Your task to perform on an android device: move a message to another label in the gmail app Image 0: 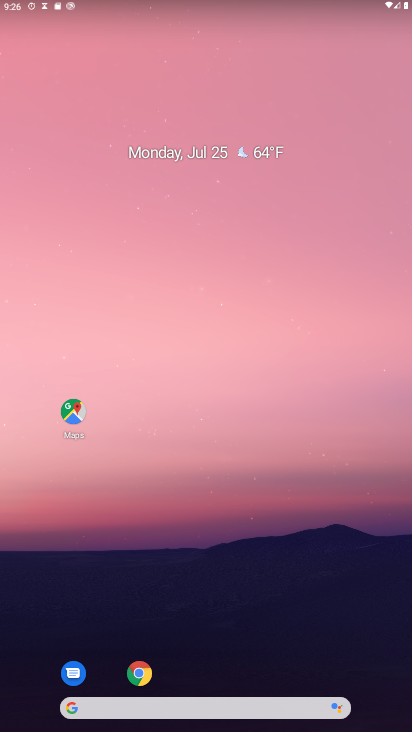
Step 0: press home button
Your task to perform on an android device: move a message to another label in the gmail app Image 1: 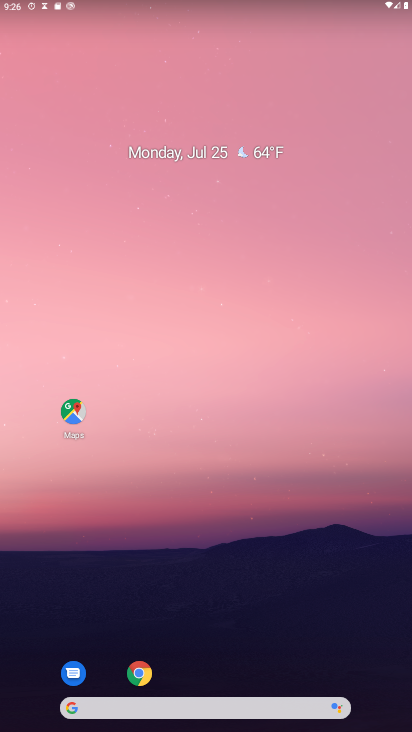
Step 1: drag from (225, 677) to (236, 57)
Your task to perform on an android device: move a message to another label in the gmail app Image 2: 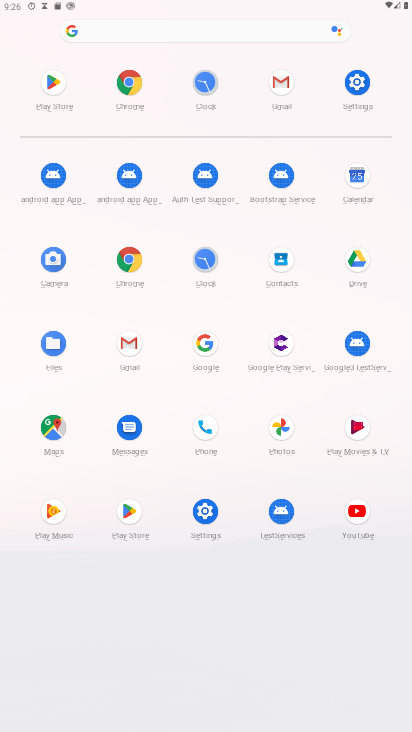
Step 2: click (279, 75)
Your task to perform on an android device: move a message to another label in the gmail app Image 3: 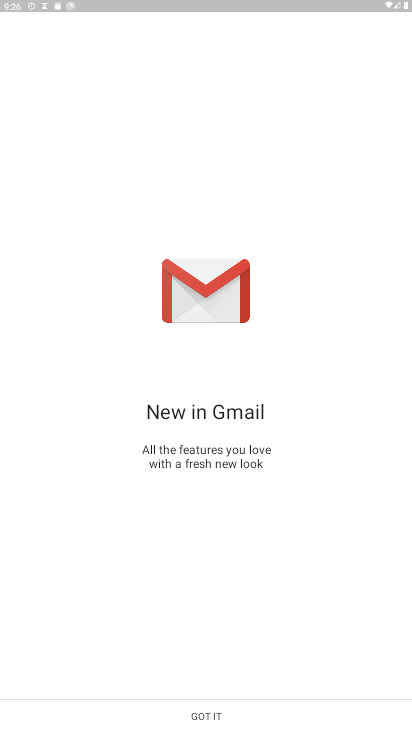
Step 3: click (208, 711)
Your task to perform on an android device: move a message to another label in the gmail app Image 4: 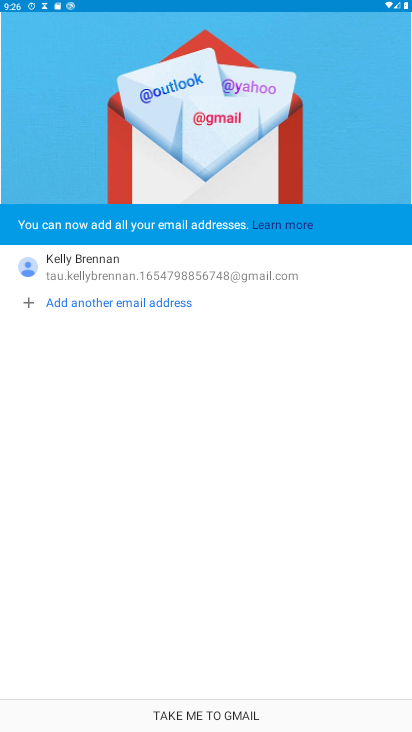
Step 4: click (208, 711)
Your task to perform on an android device: move a message to another label in the gmail app Image 5: 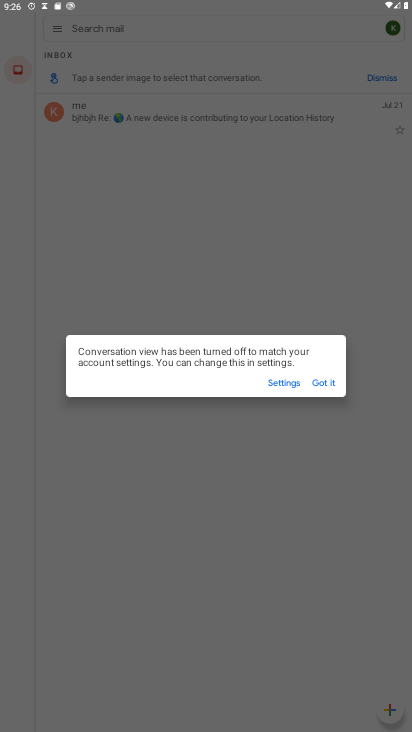
Step 5: click (321, 382)
Your task to perform on an android device: move a message to another label in the gmail app Image 6: 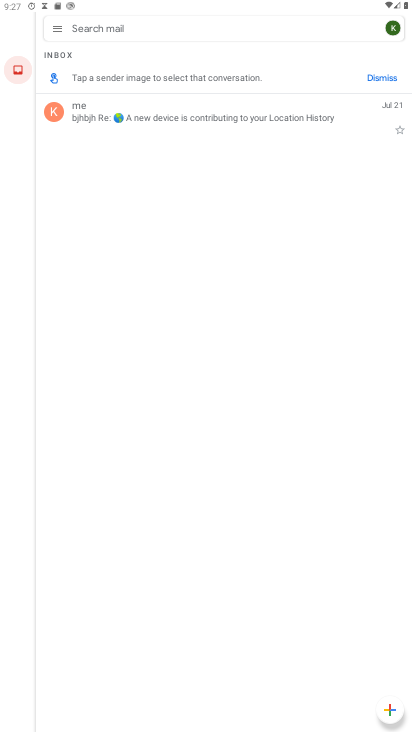
Step 6: click (48, 107)
Your task to perform on an android device: move a message to another label in the gmail app Image 7: 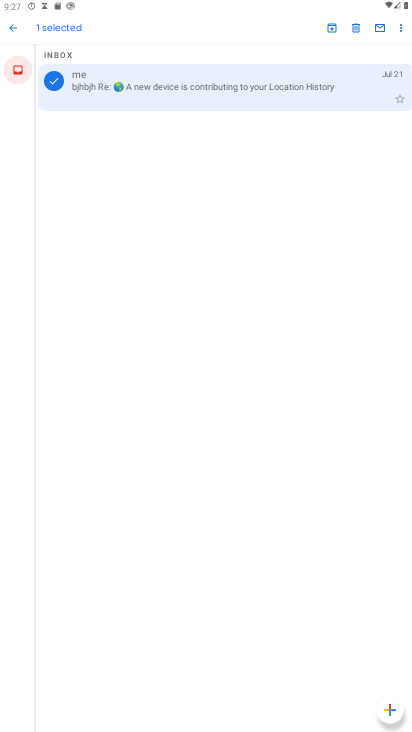
Step 7: click (400, 26)
Your task to perform on an android device: move a message to another label in the gmail app Image 8: 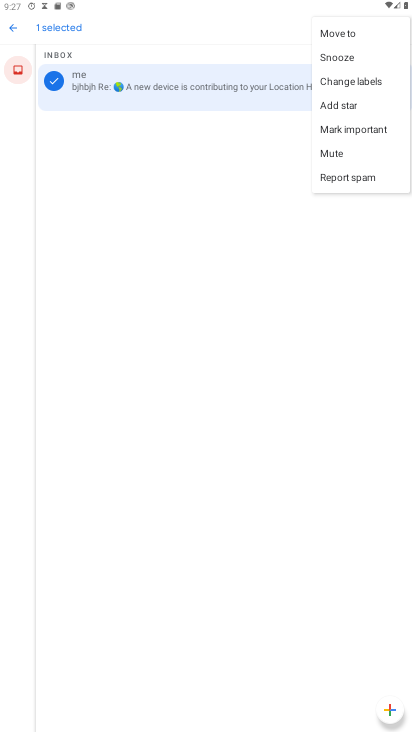
Step 8: click (359, 30)
Your task to perform on an android device: move a message to another label in the gmail app Image 9: 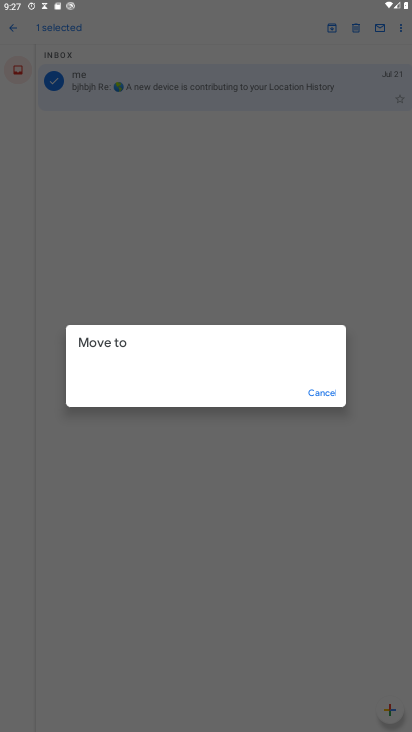
Step 9: click (311, 397)
Your task to perform on an android device: move a message to another label in the gmail app Image 10: 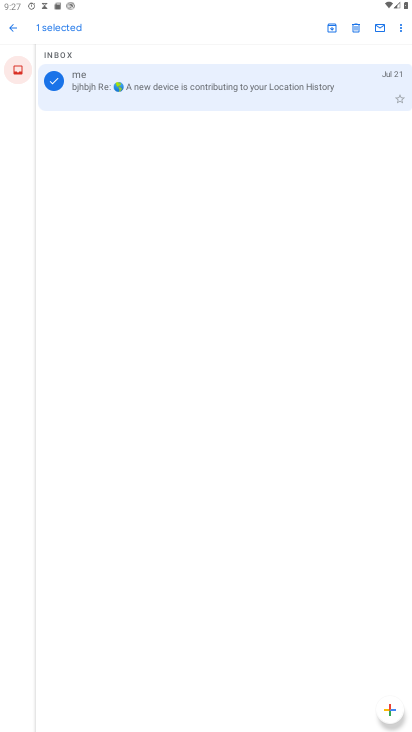
Step 10: click (400, 25)
Your task to perform on an android device: move a message to another label in the gmail app Image 11: 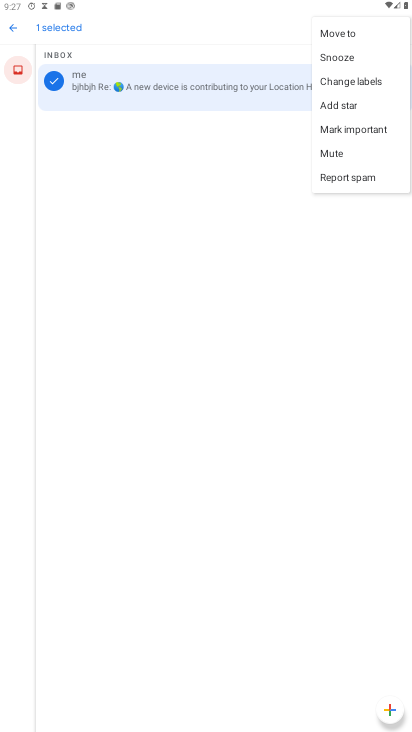
Step 11: click (353, 81)
Your task to perform on an android device: move a message to another label in the gmail app Image 12: 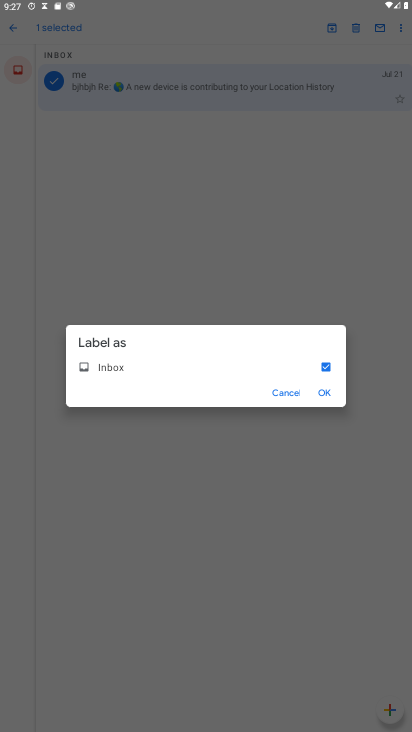
Step 12: click (319, 393)
Your task to perform on an android device: move a message to another label in the gmail app Image 13: 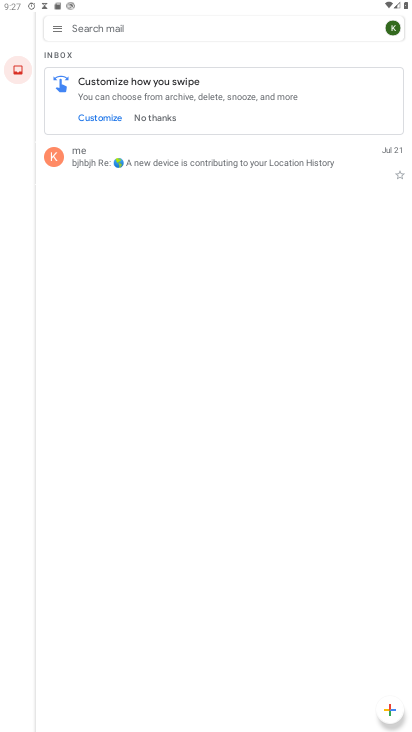
Step 13: task complete